Your task to perform on an android device: Go to privacy settings Image 0: 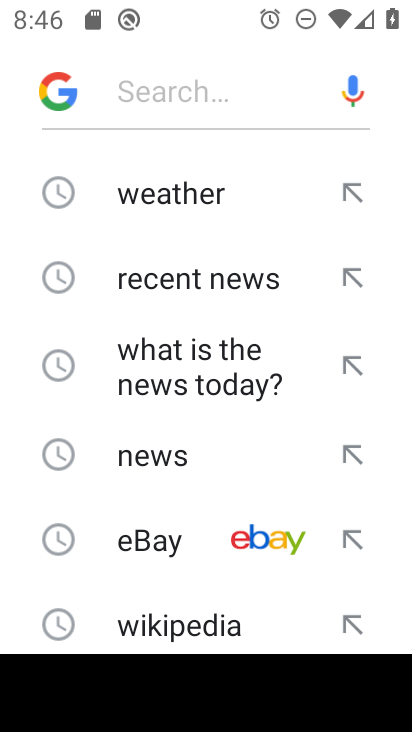
Step 0: press home button
Your task to perform on an android device: Go to privacy settings Image 1: 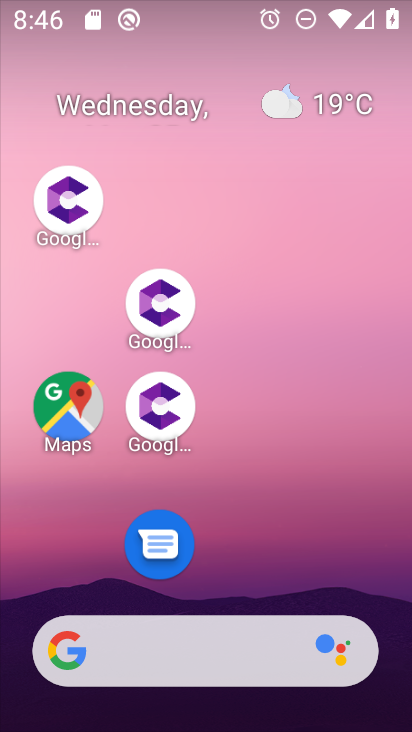
Step 1: drag from (302, 500) to (232, 65)
Your task to perform on an android device: Go to privacy settings Image 2: 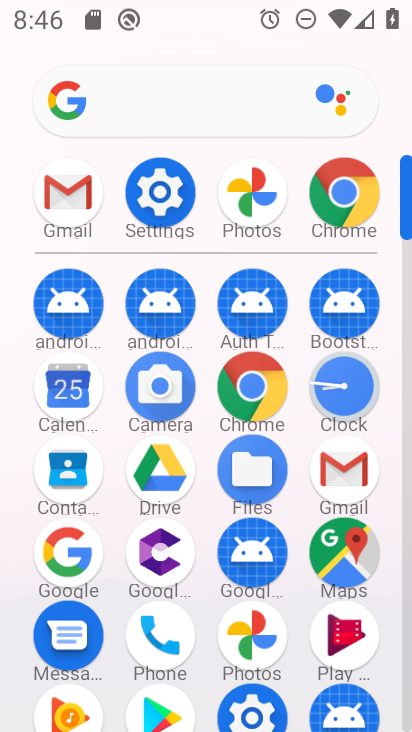
Step 2: click (166, 184)
Your task to perform on an android device: Go to privacy settings Image 3: 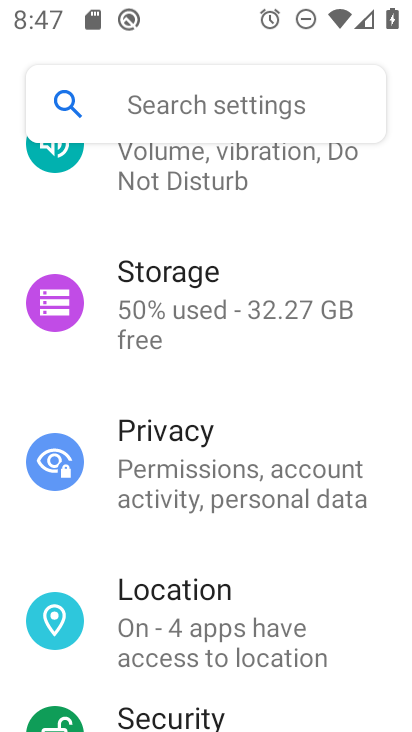
Step 3: click (148, 439)
Your task to perform on an android device: Go to privacy settings Image 4: 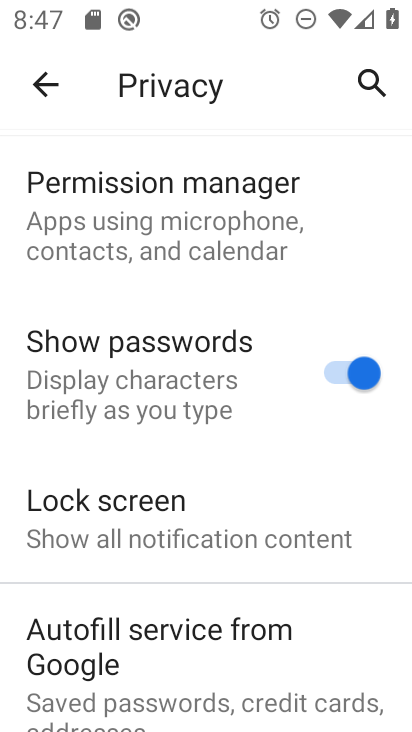
Step 4: task complete